Your task to perform on an android device: turn smart compose on in the gmail app Image 0: 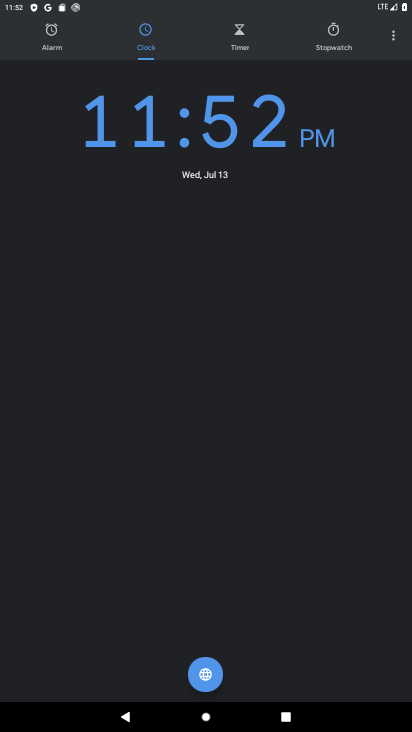
Step 0: press home button
Your task to perform on an android device: turn smart compose on in the gmail app Image 1: 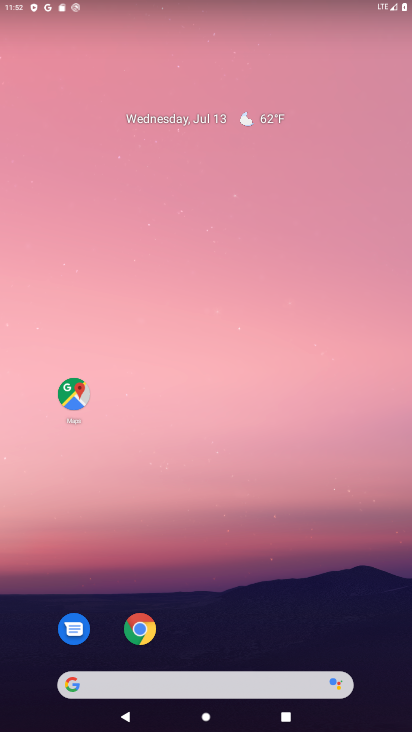
Step 1: drag from (206, 629) to (137, 65)
Your task to perform on an android device: turn smart compose on in the gmail app Image 2: 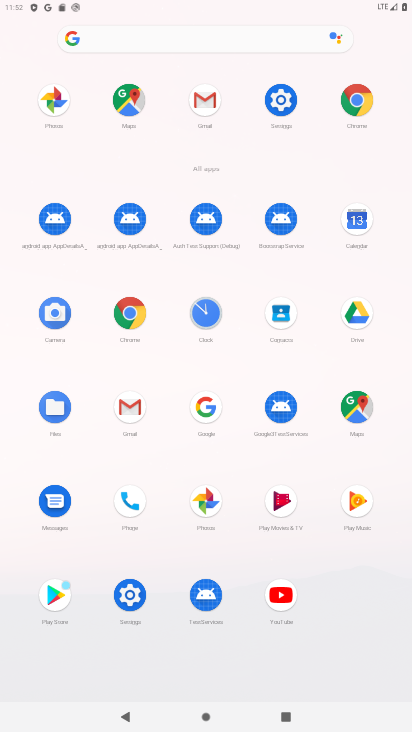
Step 2: click (202, 92)
Your task to perform on an android device: turn smart compose on in the gmail app Image 3: 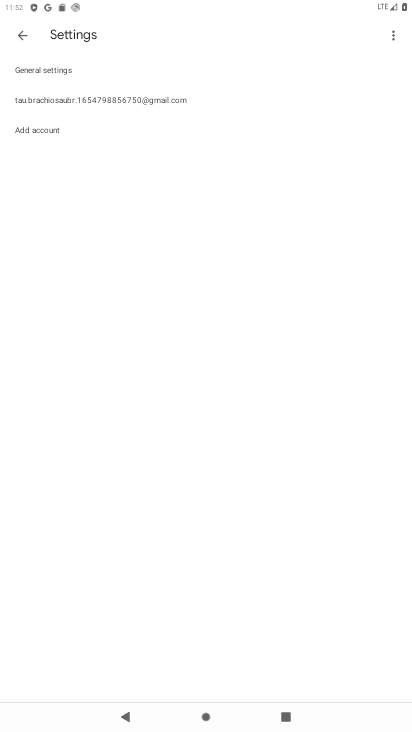
Step 3: click (162, 97)
Your task to perform on an android device: turn smart compose on in the gmail app Image 4: 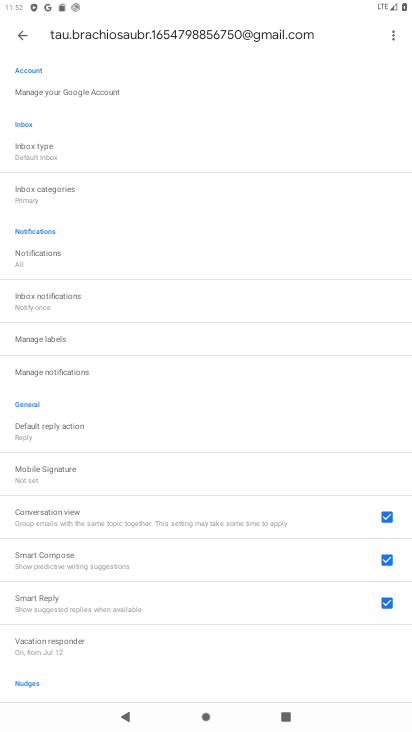
Step 4: task complete